Your task to perform on an android device: show emergency info Image 0: 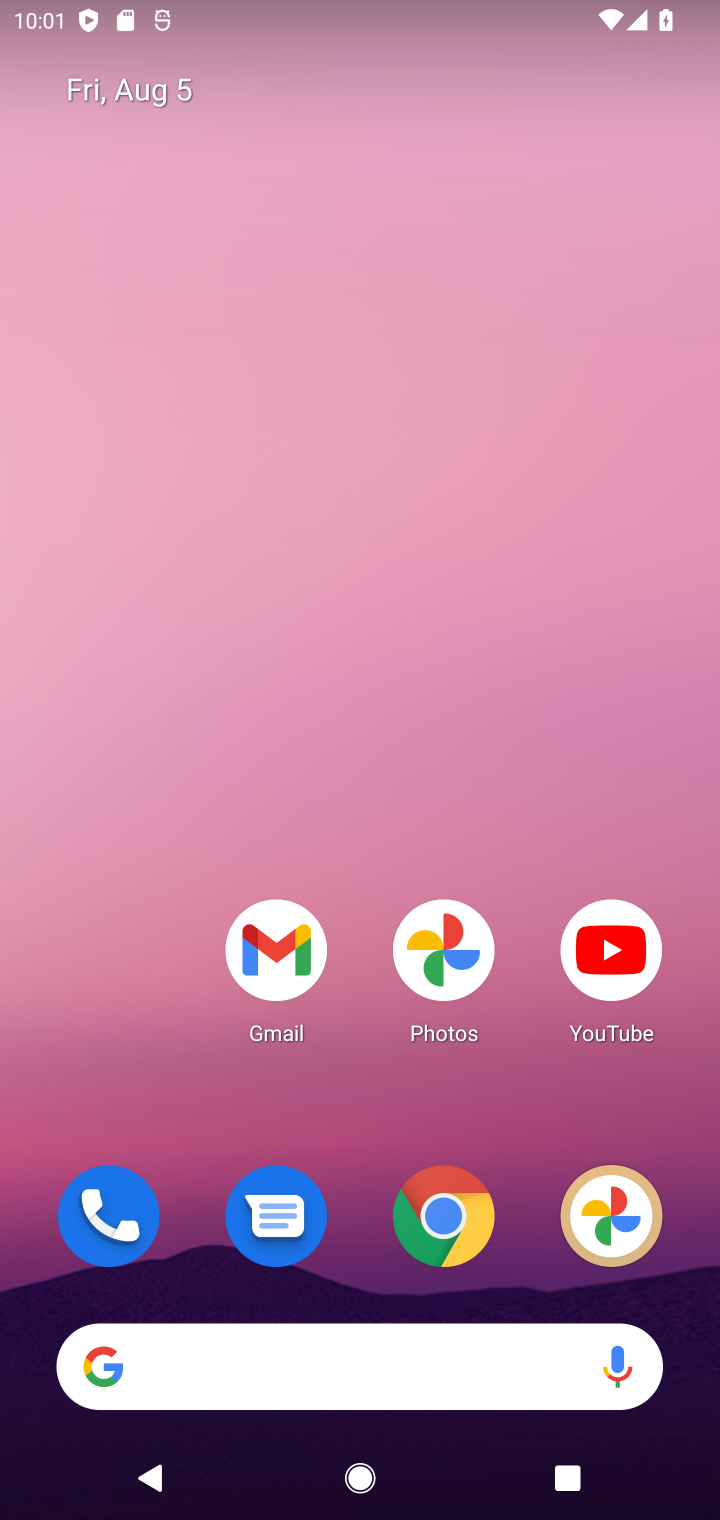
Step 0: drag from (484, 1332) to (464, 10)
Your task to perform on an android device: show emergency info Image 1: 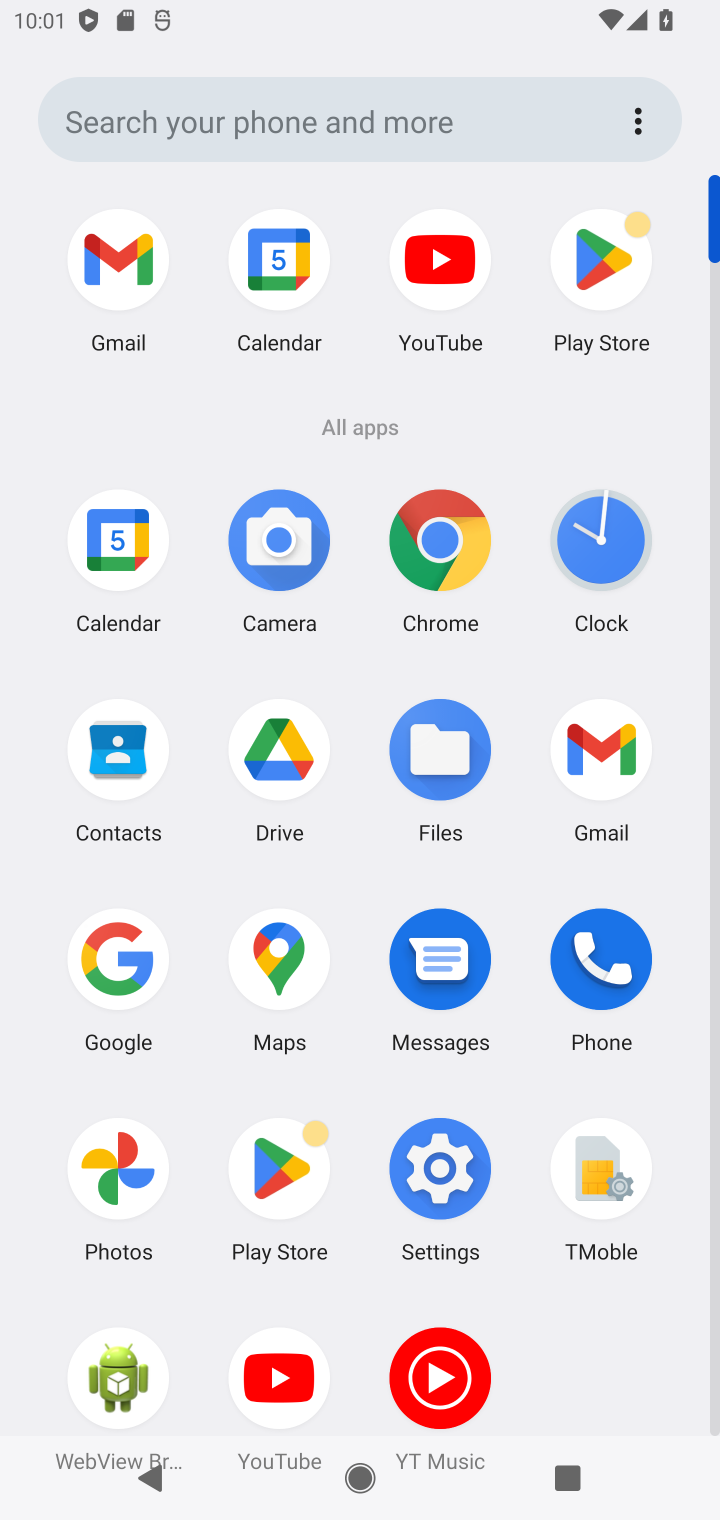
Step 1: click (430, 1184)
Your task to perform on an android device: show emergency info Image 2: 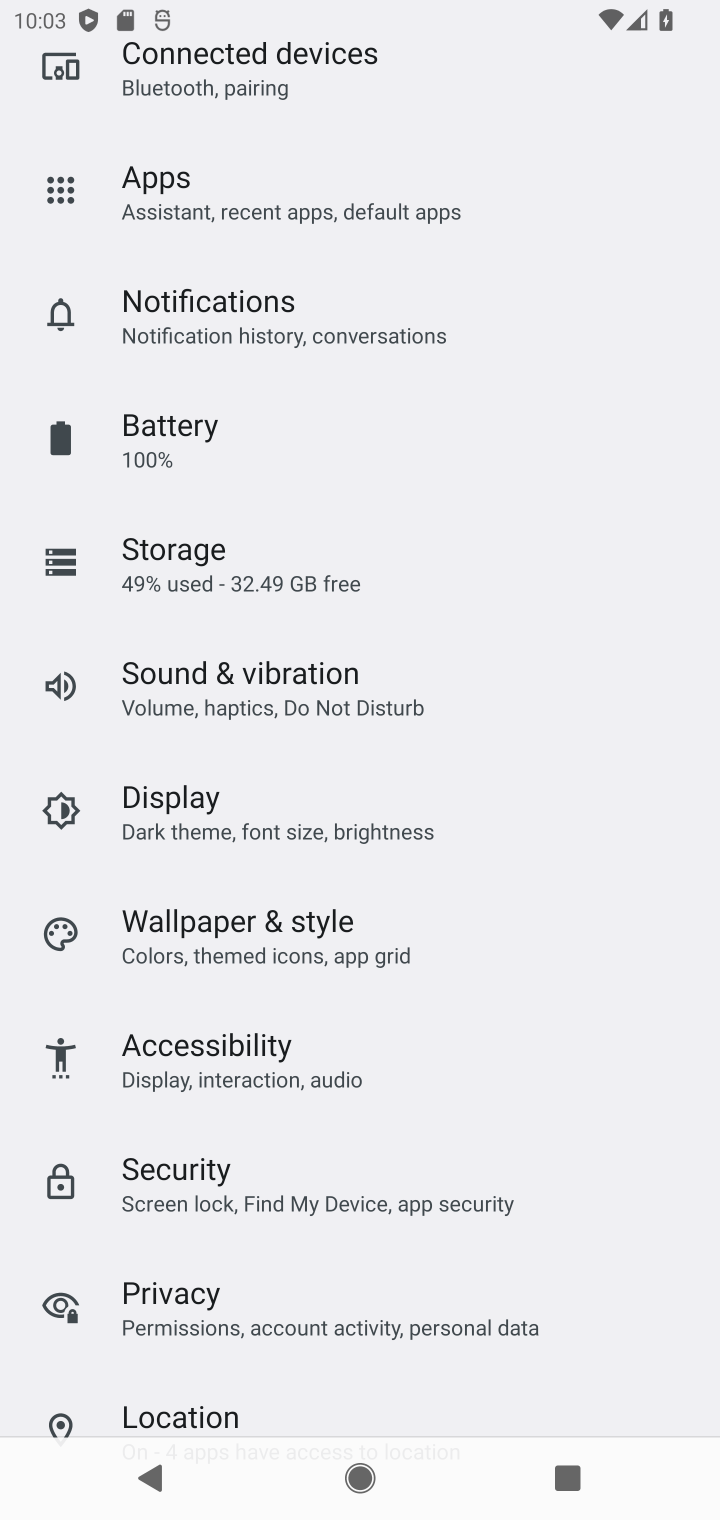
Step 2: drag from (383, 1365) to (385, 251)
Your task to perform on an android device: show emergency info Image 3: 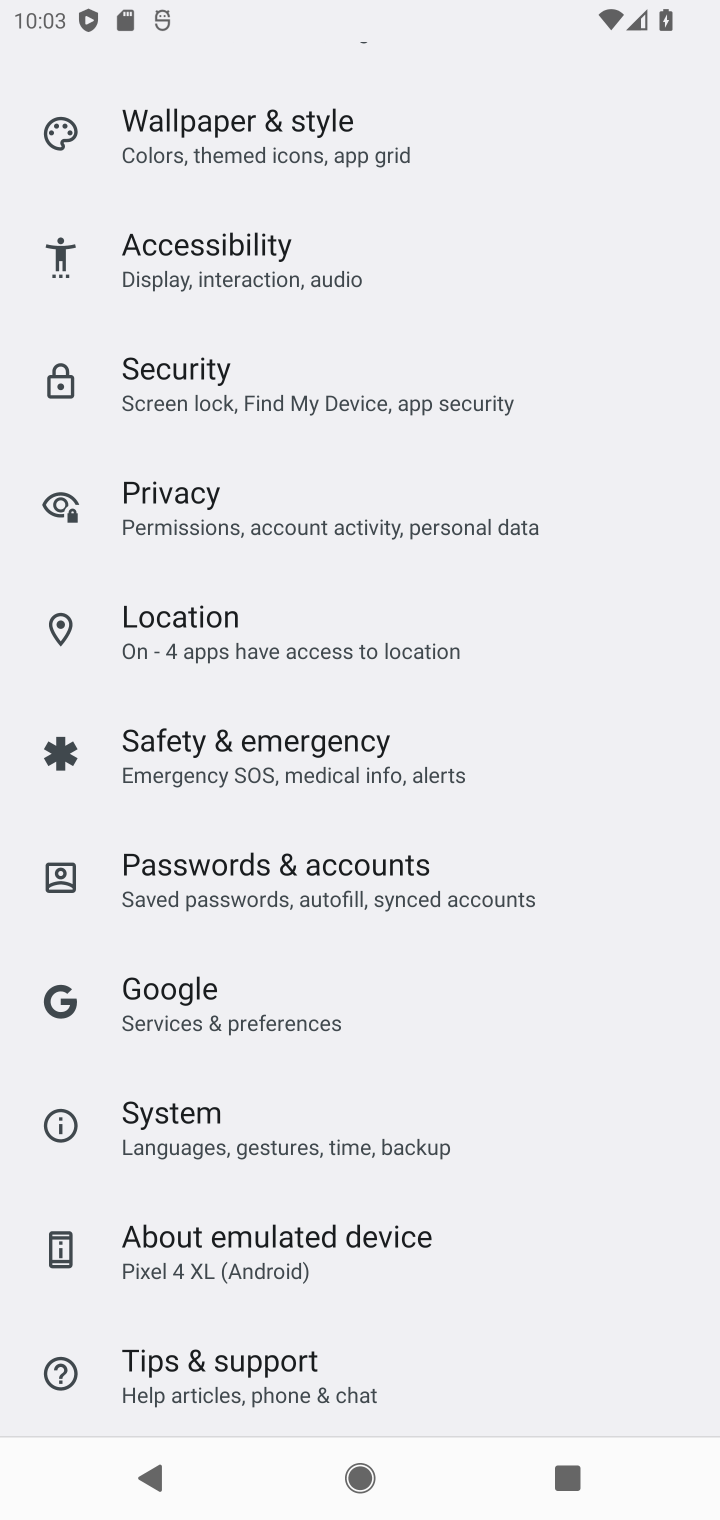
Step 3: click (313, 1277)
Your task to perform on an android device: show emergency info Image 4: 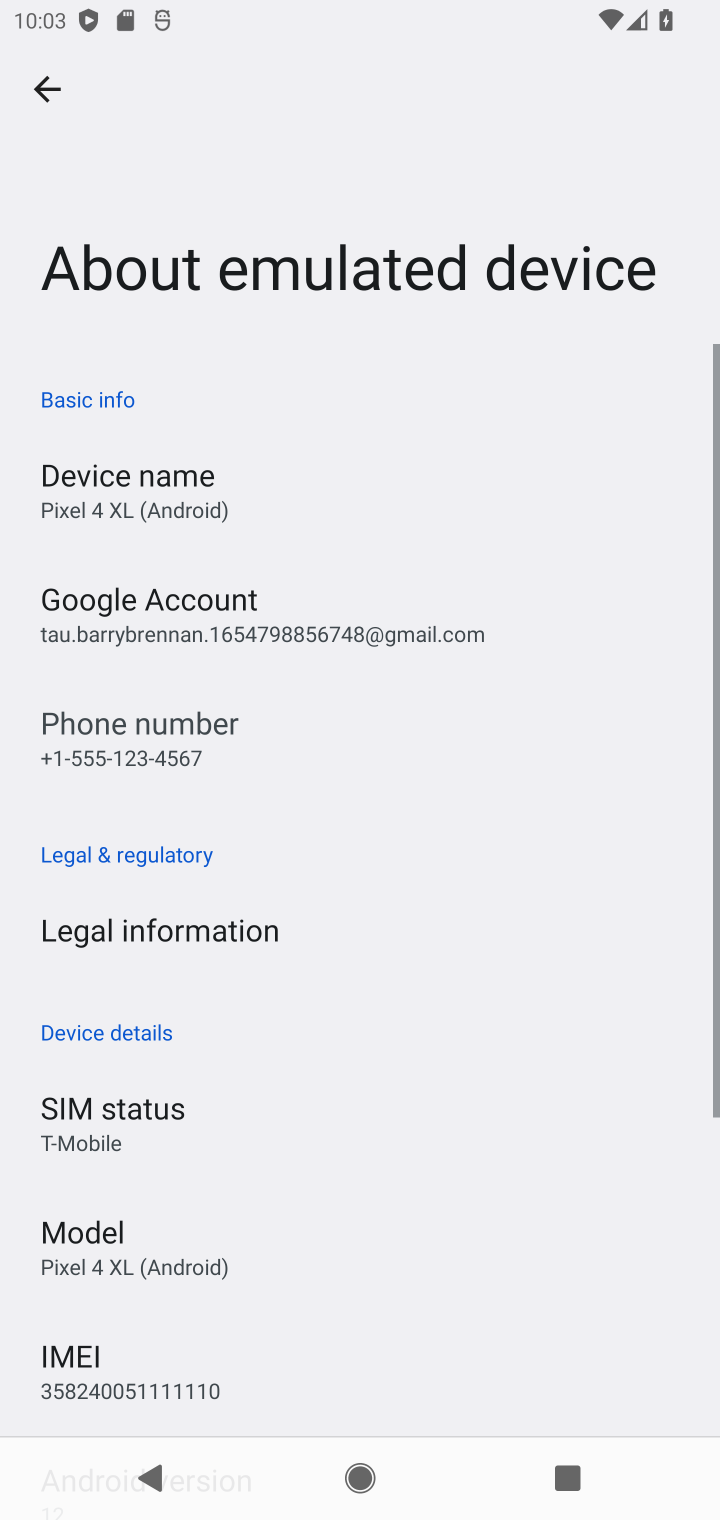
Step 4: task complete